Your task to perform on an android device: open sync settings in chrome Image 0: 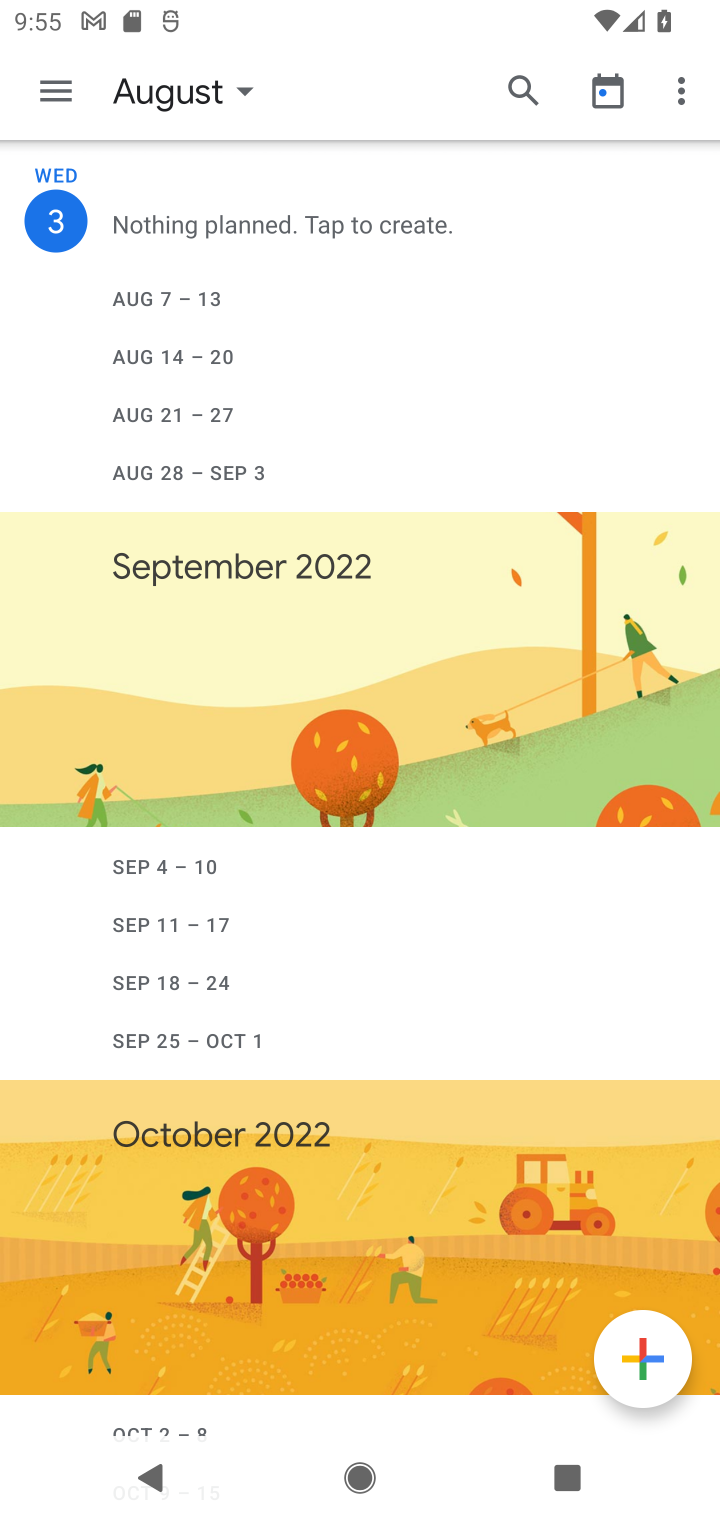
Step 0: press home button
Your task to perform on an android device: open sync settings in chrome Image 1: 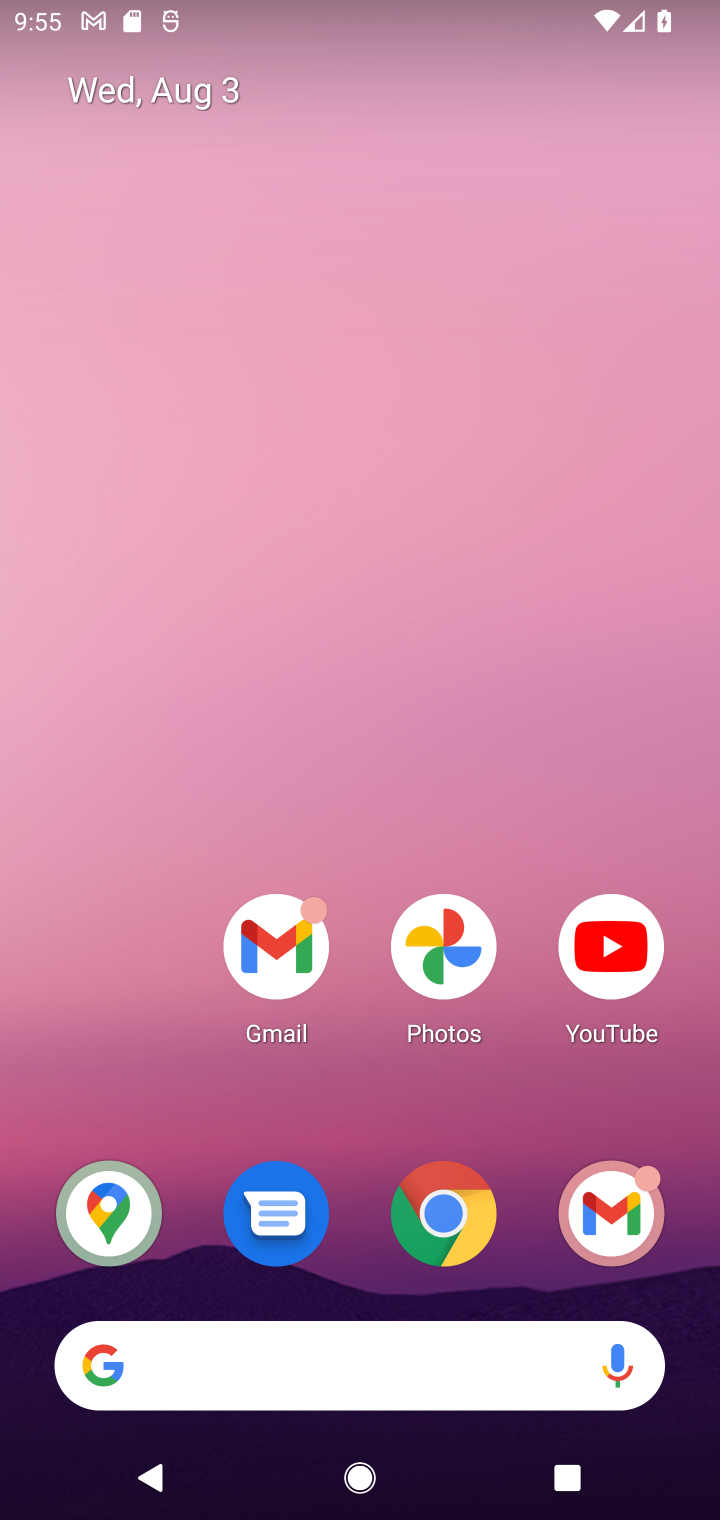
Step 1: drag from (338, 1267) to (177, 1)
Your task to perform on an android device: open sync settings in chrome Image 2: 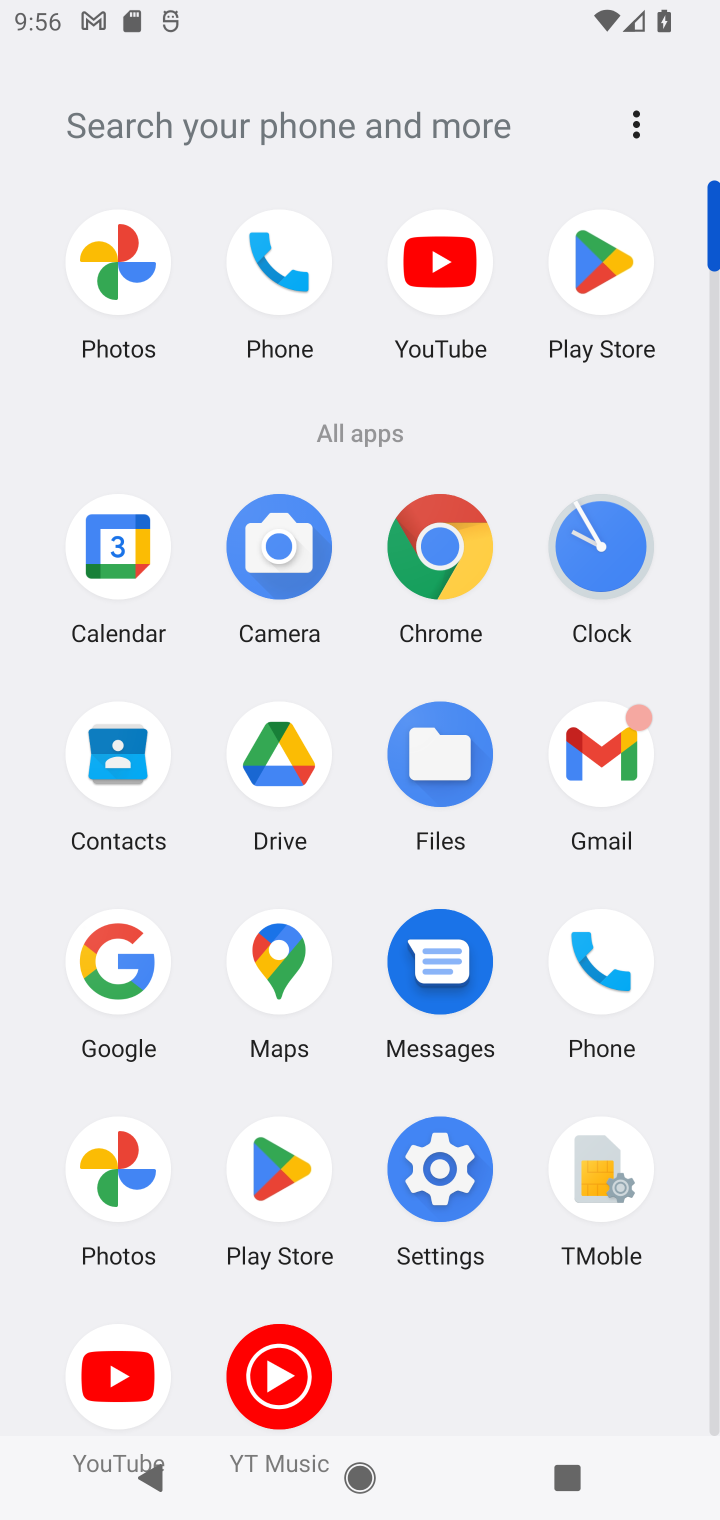
Step 2: click (394, 542)
Your task to perform on an android device: open sync settings in chrome Image 3: 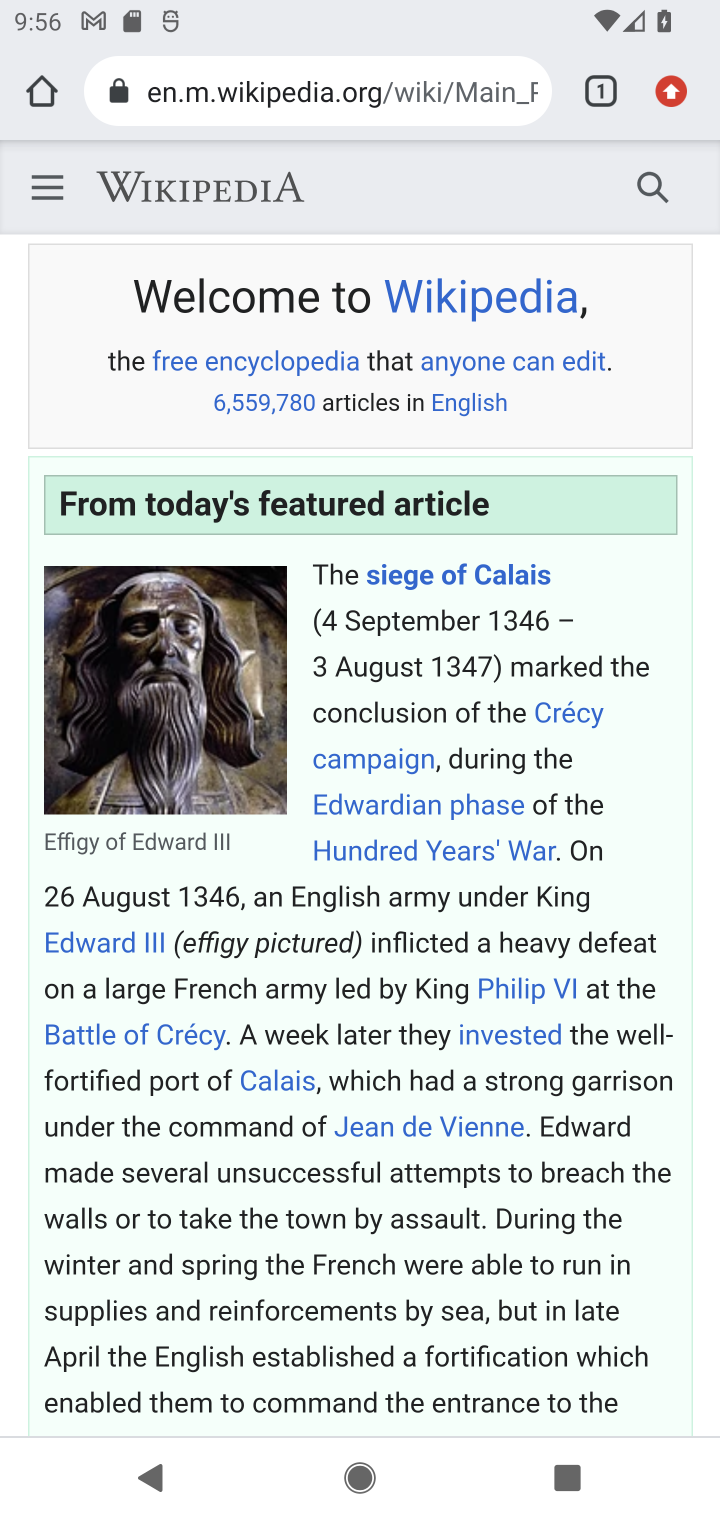
Step 3: drag from (710, 76) to (416, 1254)
Your task to perform on an android device: open sync settings in chrome Image 4: 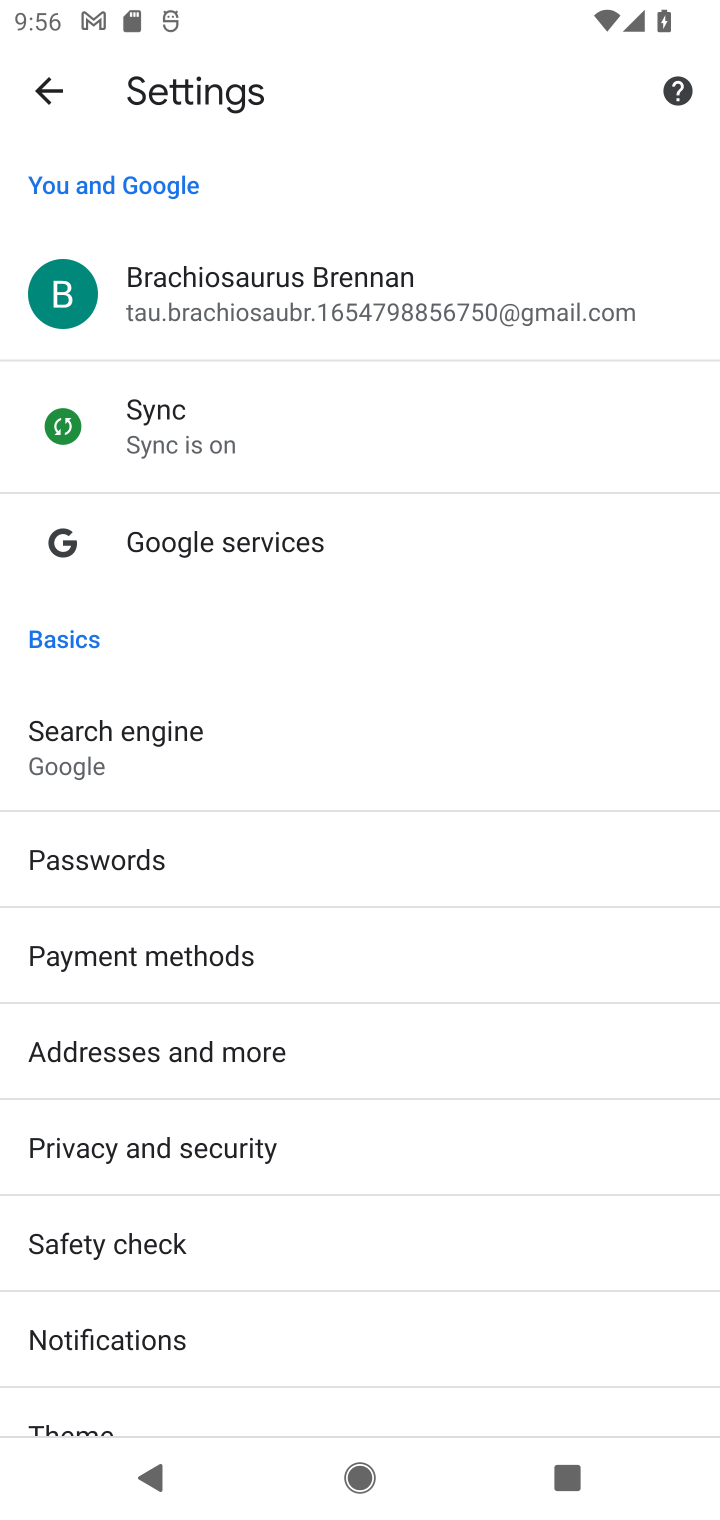
Step 4: click (168, 401)
Your task to perform on an android device: open sync settings in chrome Image 5: 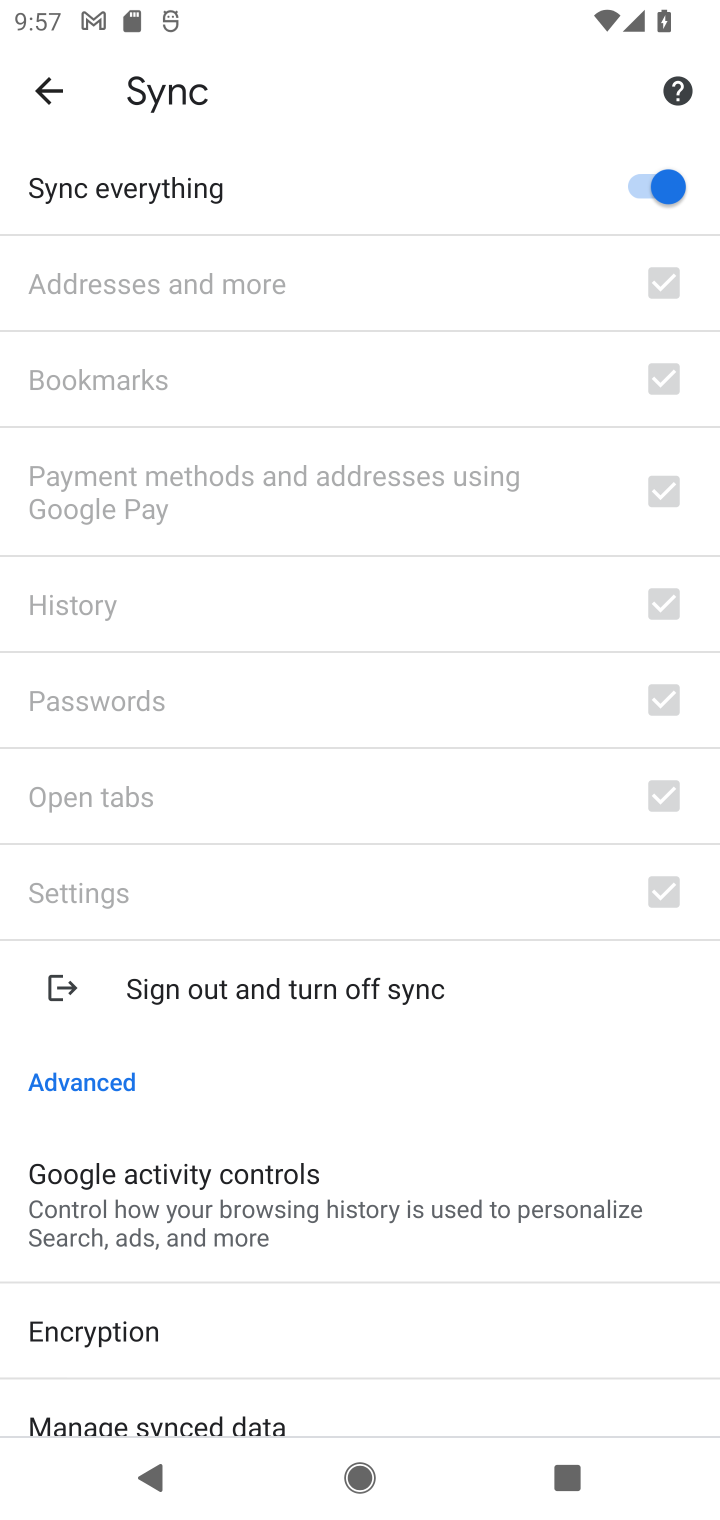
Step 5: task complete